Your task to perform on an android device: What is the recent news? Image 0: 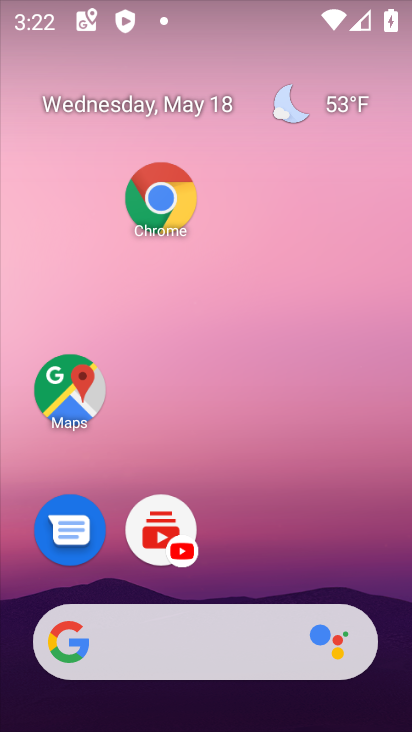
Step 0: drag from (331, 700) to (210, 247)
Your task to perform on an android device: What is the recent news? Image 1: 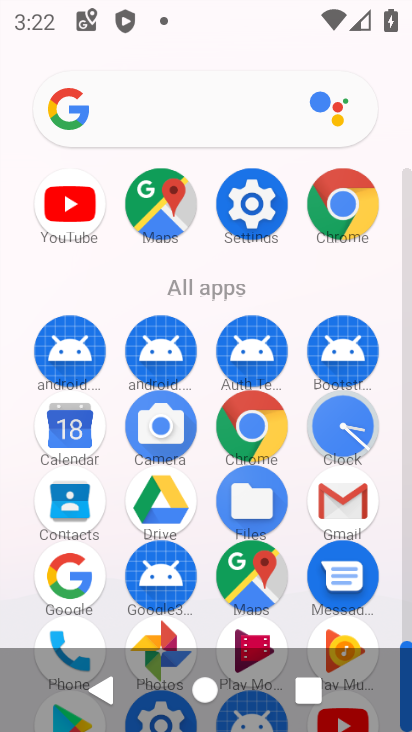
Step 1: press back button
Your task to perform on an android device: What is the recent news? Image 2: 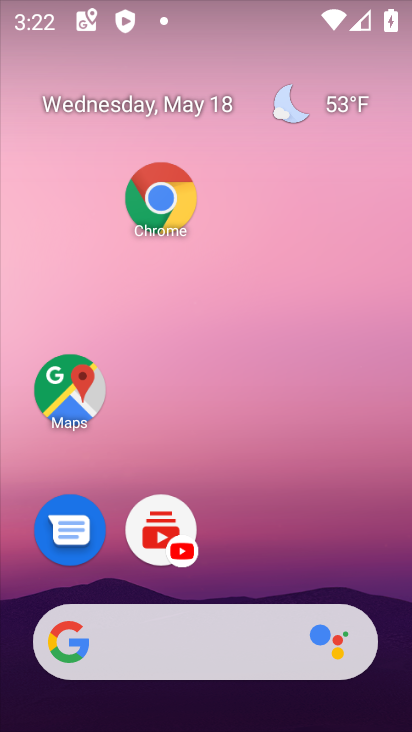
Step 2: drag from (34, 227) to (409, 427)
Your task to perform on an android device: What is the recent news? Image 3: 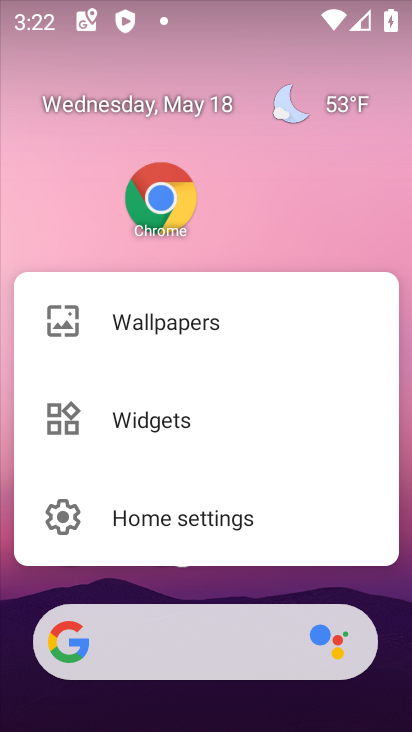
Step 3: drag from (55, 198) to (403, 370)
Your task to perform on an android device: What is the recent news? Image 4: 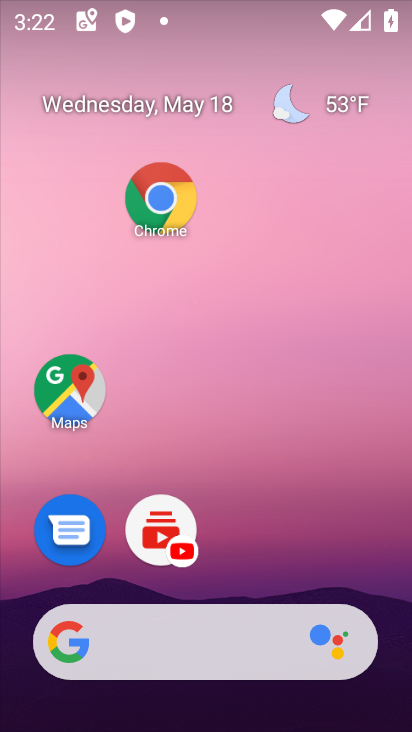
Step 4: drag from (26, 186) to (377, 566)
Your task to perform on an android device: What is the recent news? Image 5: 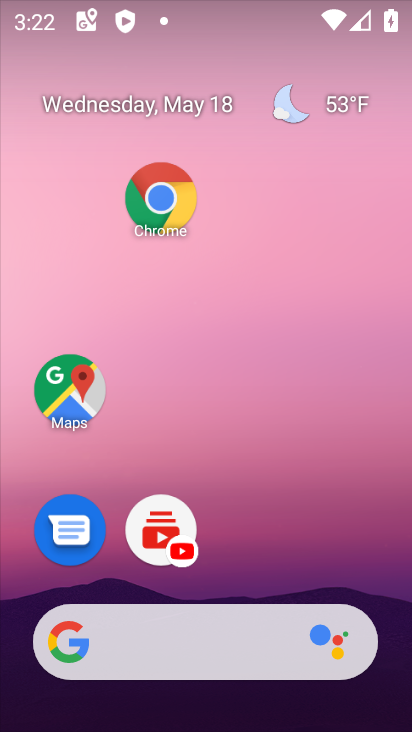
Step 5: drag from (26, 221) to (395, 421)
Your task to perform on an android device: What is the recent news? Image 6: 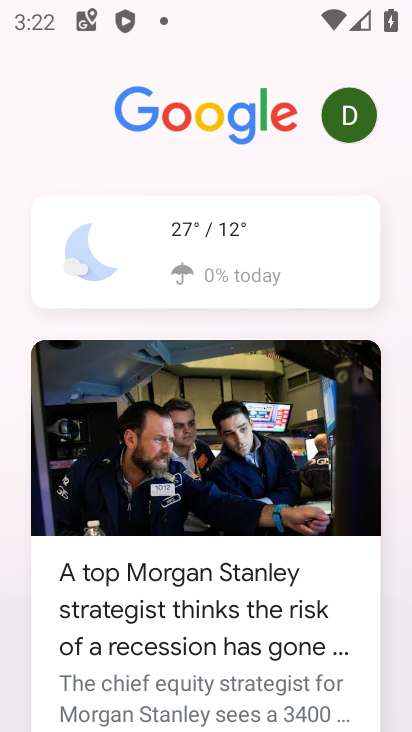
Step 6: click (136, 237)
Your task to perform on an android device: What is the recent news? Image 7: 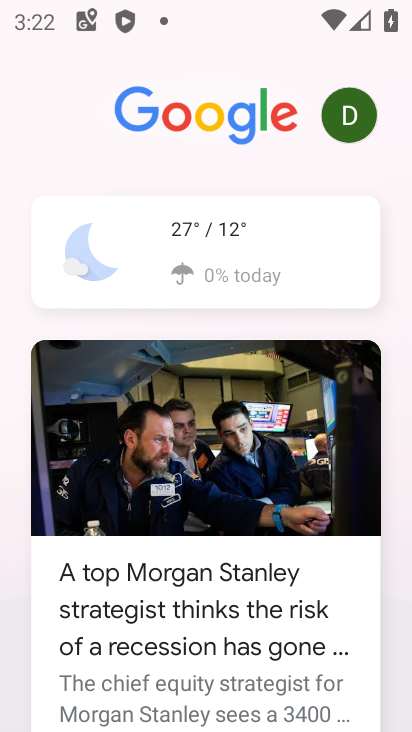
Step 7: task complete